Your task to perform on an android device: make emails show in primary in the gmail app Image 0: 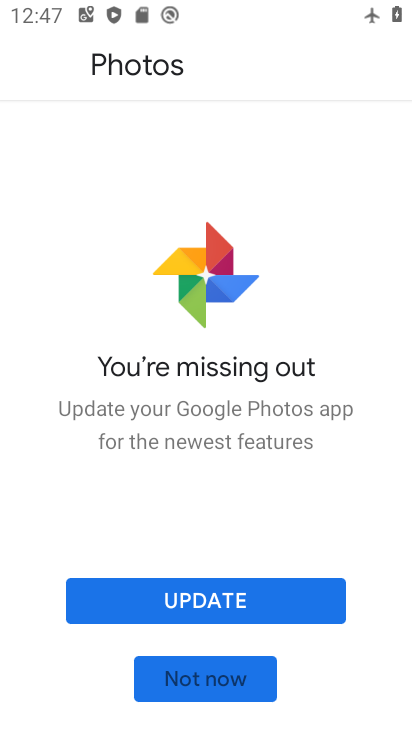
Step 0: press home button
Your task to perform on an android device: make emails show in primary in the gmail app Image 1: 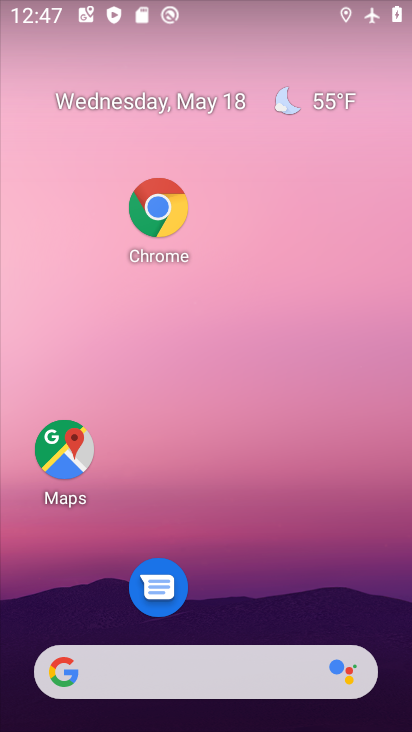
Step 1: drag from (266, 471) to (283, 190)
Your task to perform on an android device: make emails show in primary in the gmail app Image 2: 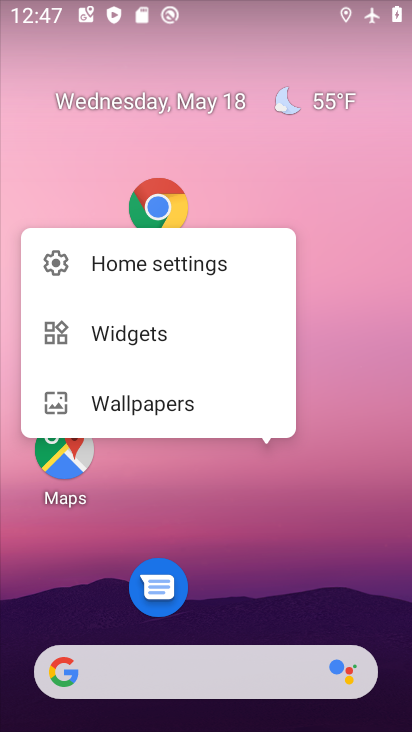
Step 2: drag from (241, 593) to (232, 99)
Your task to perform on an android device: make emails show in primary in the gmail app Image 3: 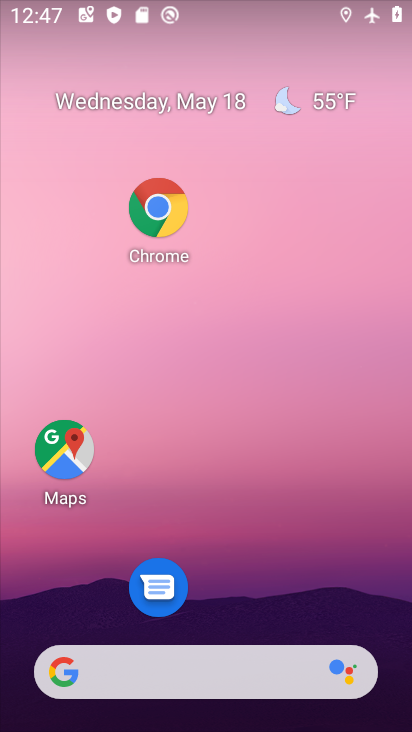
Step 3: click (233, 108)
Your task to perform on an android device: make emails show in primary in the gmail app Image 4: 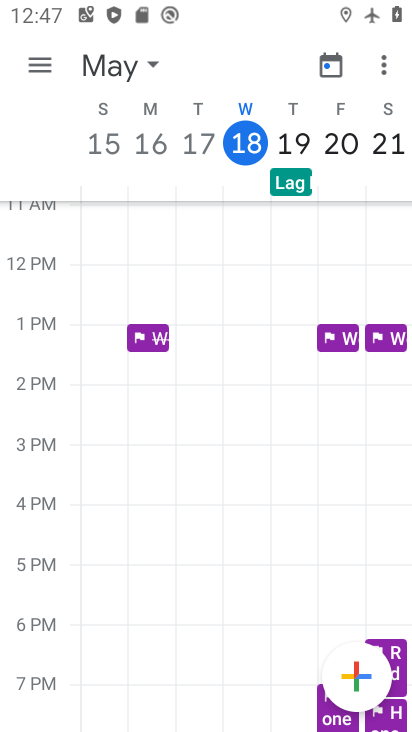
Step 4: click (292, 525)
Your task to perform on an android device: make emails show in primary in the gmail app Image 5: 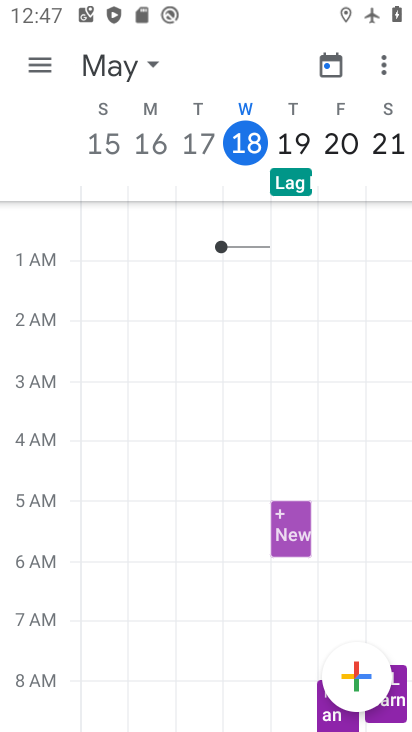
Step 5: drag from (255, 610) to (196, 0)
Your task to perform on an android device: make emails show in primary in the gmail app Image 6: 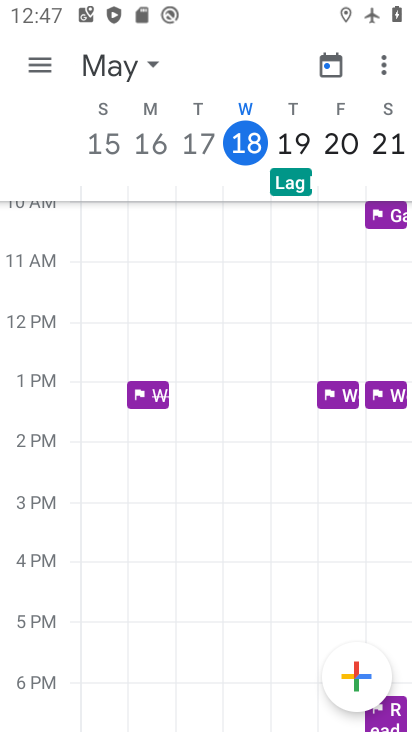
Step 6: press home button
Your task to perform on an android device: make emails show in primary in the gmail app Image 7: 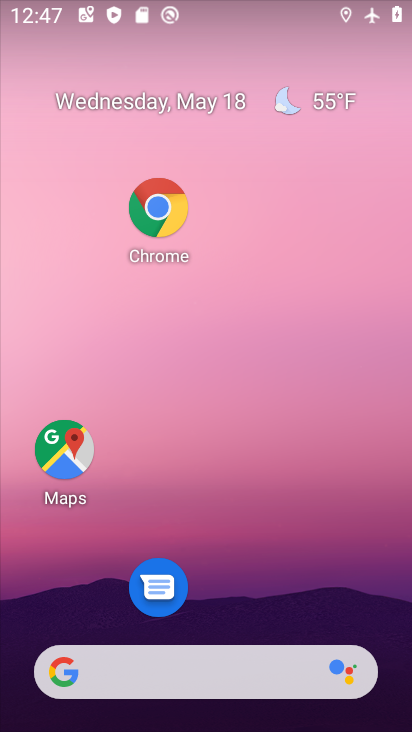
Step 7: drag from (202, 386) to (203, 93)
Your task to perform on an android device: make emails show in primary in the gmail app Image 8: 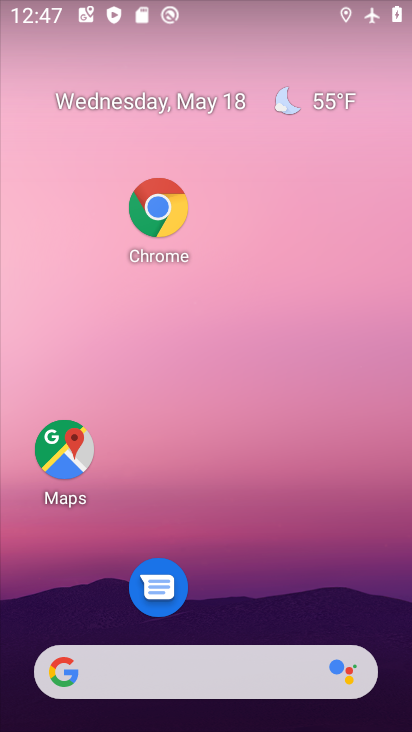
Step 8: drag from (268, 586) to (208, 363)
Your task to perform on an android device: make emails show in primary in the gmail app Image 9: 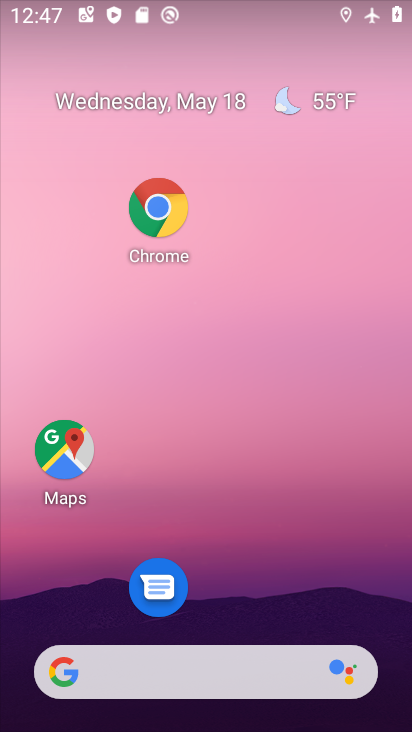
Step 9: click (191, 0)
Your task to perform on an android device: make emails show in primary in the gmail app Image 10: 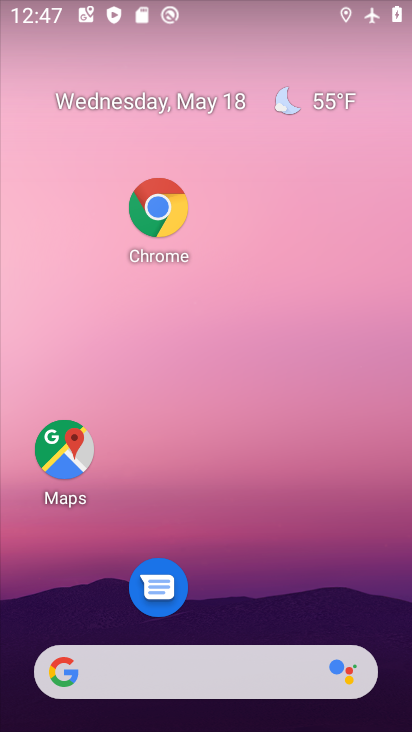
Step 10: drag from (238, 599) to (216, 0)
Your task to perform on an android device: make emails show in primary in the gmail app Image 11: 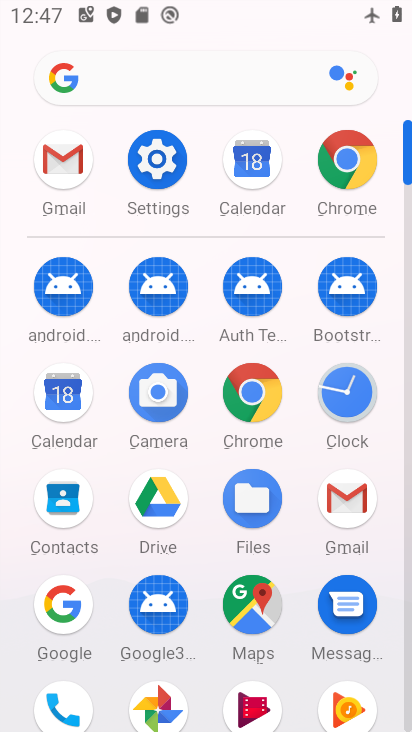
Step 11: click (197, 24)
Your task to perform on an android device: make emails show in primary in the gmail app Image 12: 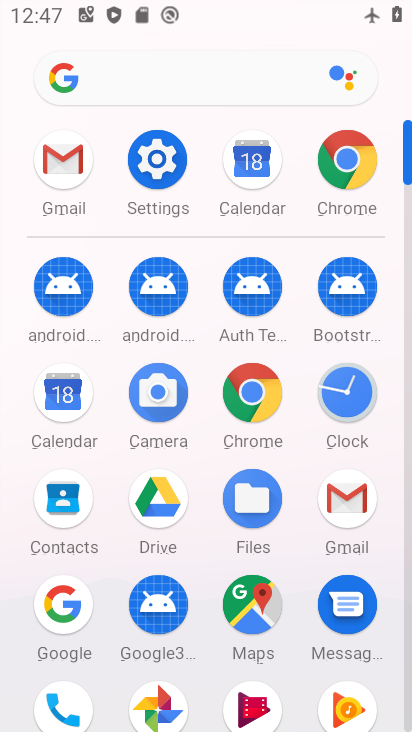
Step 12: click (64, 204)
Your task to perform on an android device: make emails show in primary in the gmail app Image 13: 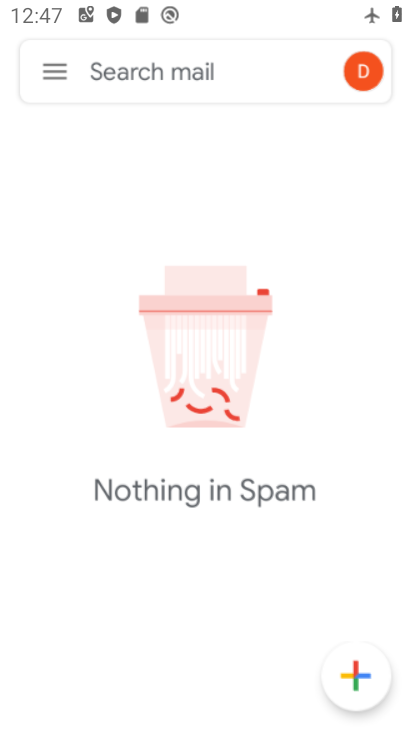
Step 13: click (67, 164)
Your task to perform on an android device: make emails show in primary in the gmail app Image 14: 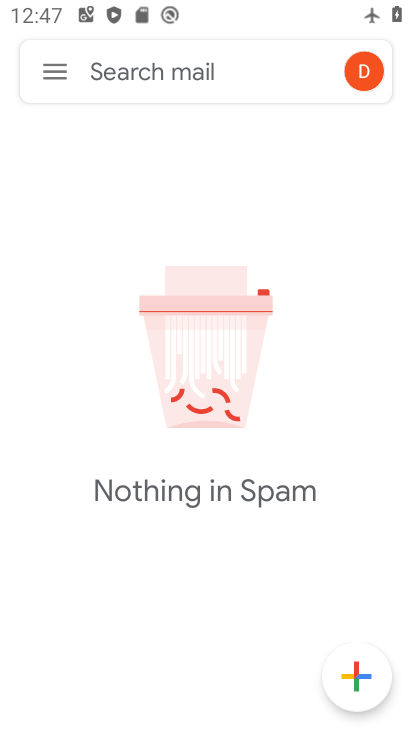
Step 14: click (60, 75)
Your task to perform on an android device: make emails show in primary in the gmail app Image 15: 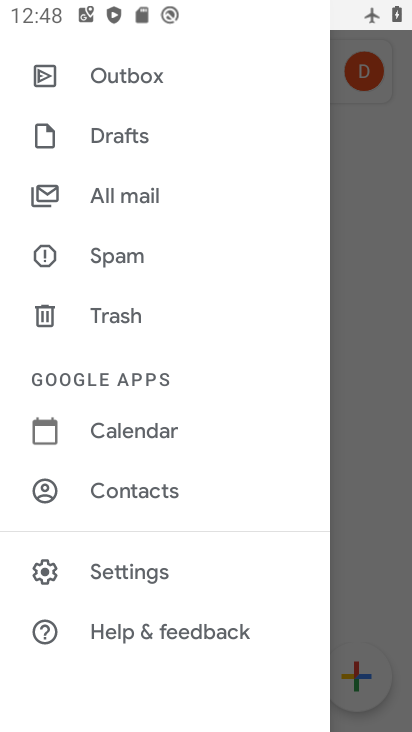
Step 15: click (120, 554)
Your task to perform on an android device: make emails show in primary in the gmail app Image 16: 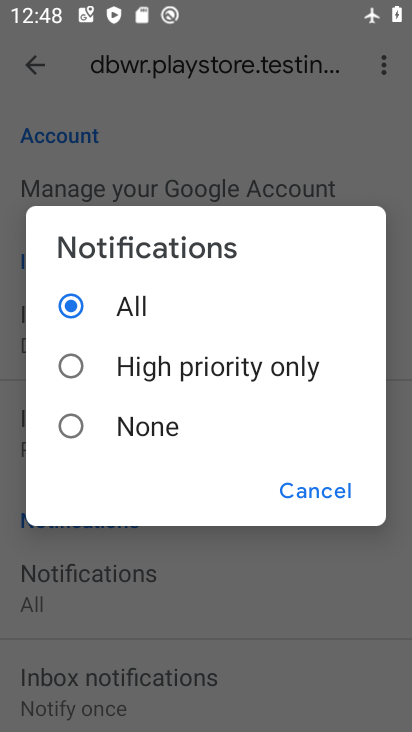
Step 16: click (323, 489)
Your task to perform on an android device: make emails show in primary in the gmail app Image 17: 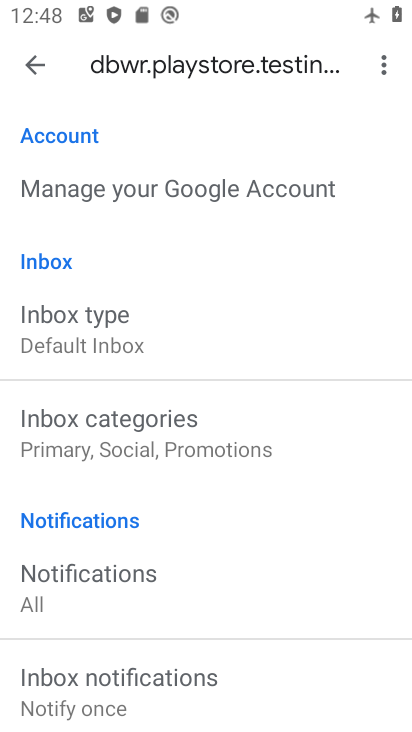
Step 17: click (136, 445)
Your task to perform on an android device: make emails show in primary in the gmail app Image 18: 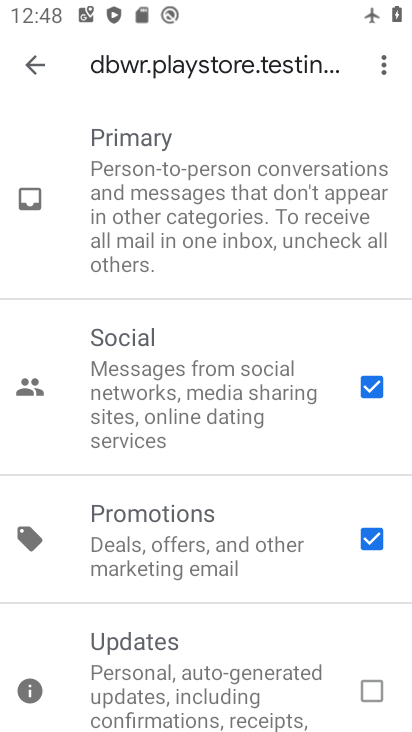
Step 18: click (378, 547)
Your task to perform on an android device: make emails show in primary in the gmail app Image 19: 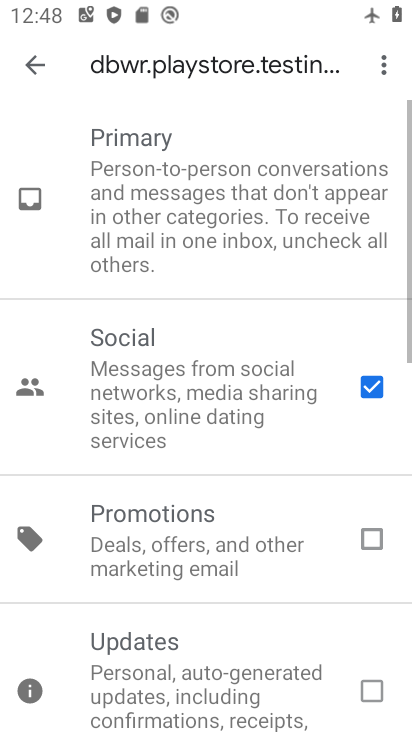
Step 19: click (378, 394)
Your task to perform on an android device: make emails show in primary in the gmail app Image 20: 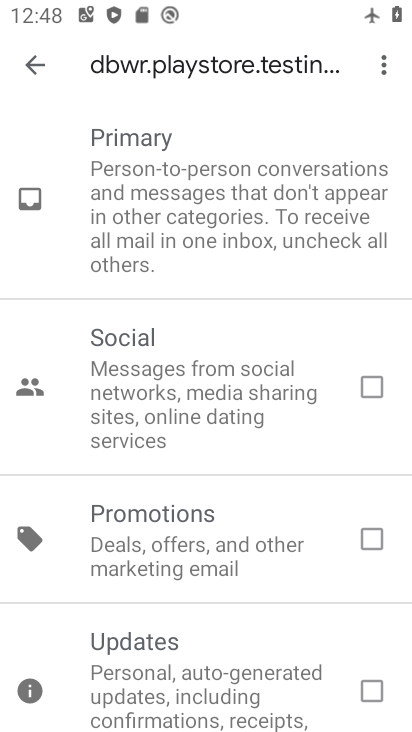
Step 20: task complete